Your task to perform on an android device: open wifi settings Image 0: 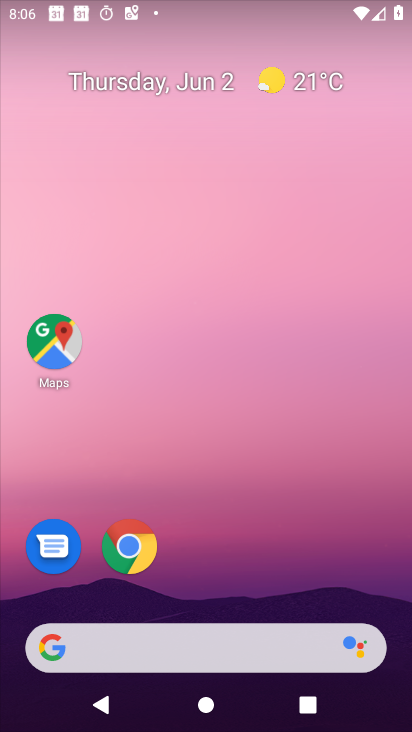
Step 0: drag from (299, 438) to (322, 164)
Your task to perform on an android device: open wifi settings Image 1: 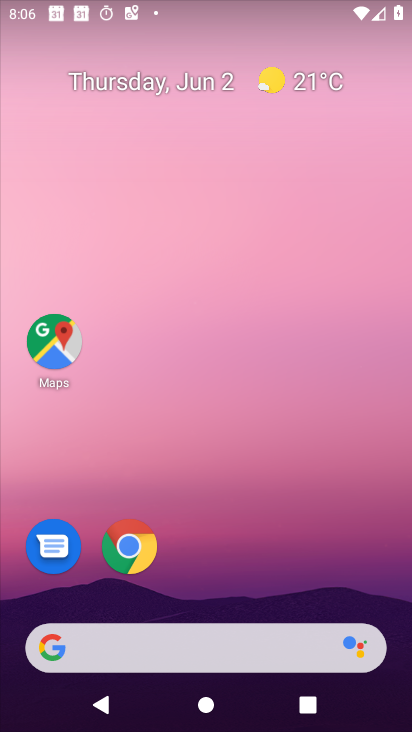
Step 1: drag from (330, 613) to (329, 260)
Your task to perform on an android device: open wifi settings Image 2: 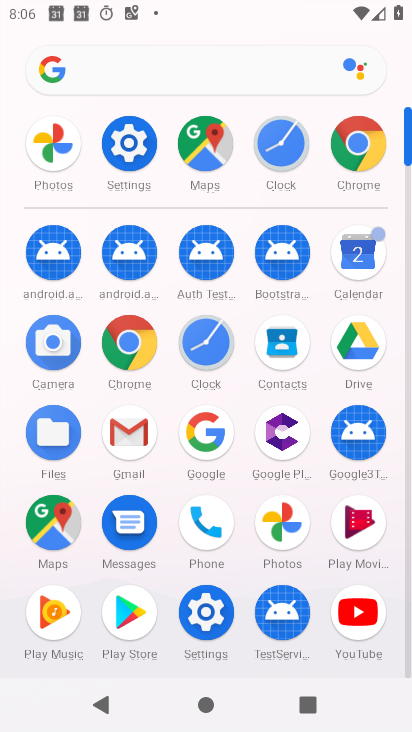
Step 2: drag from (185, 519) to (275, 109)
Your task to perform on an android device: open wifi settings Image 3: 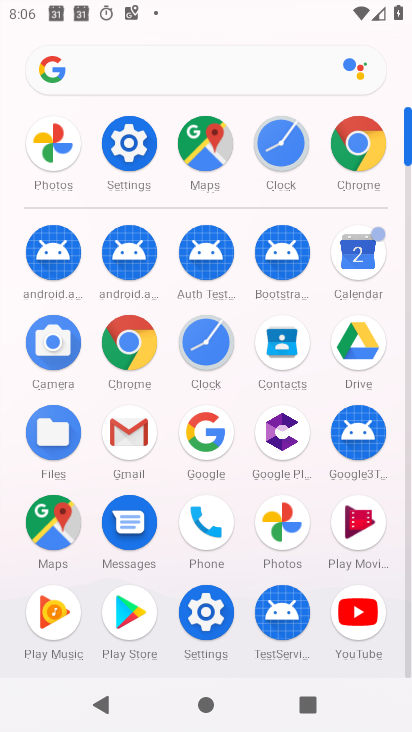
Step 3: click (217, 632)
Your task to perform on an android device: open wifi settings Image 4: 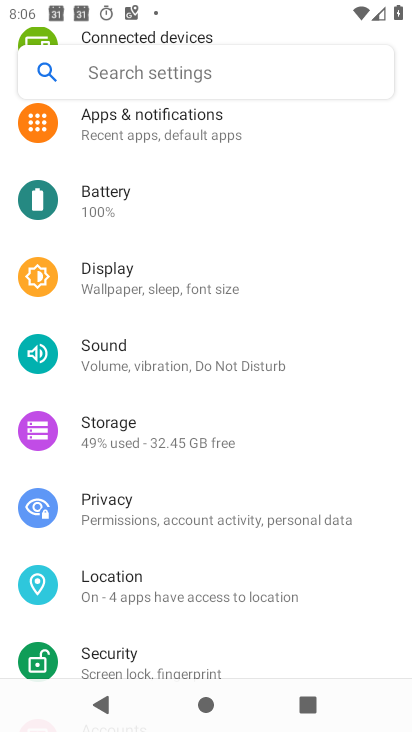
Step 4: drag from (309, 192) to (265, 631)
Your task to perform on an android device: open wifi settings Image 5: 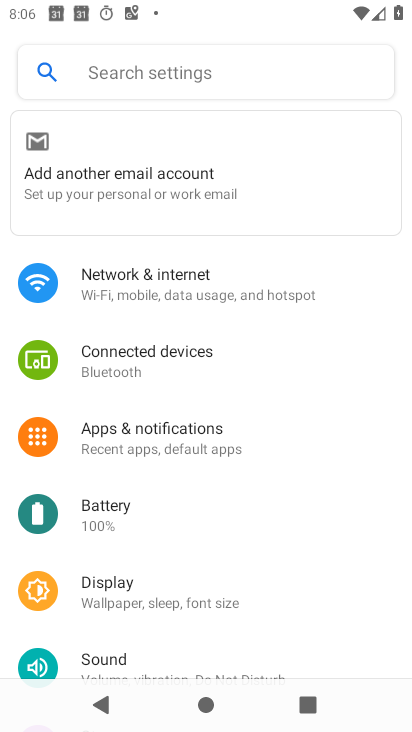
Step 5: click (232, 305)
Your task to perform on an android device: open wifi settings Image 6: 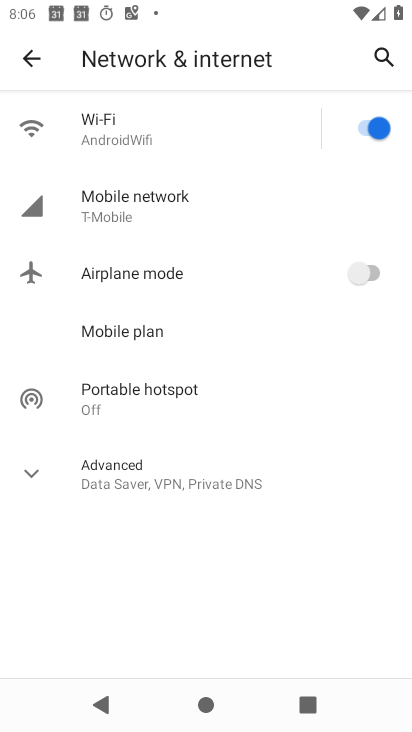
Step 6: click (233, 132)
Your task to perform on an android device: open wifi settings Image 7: 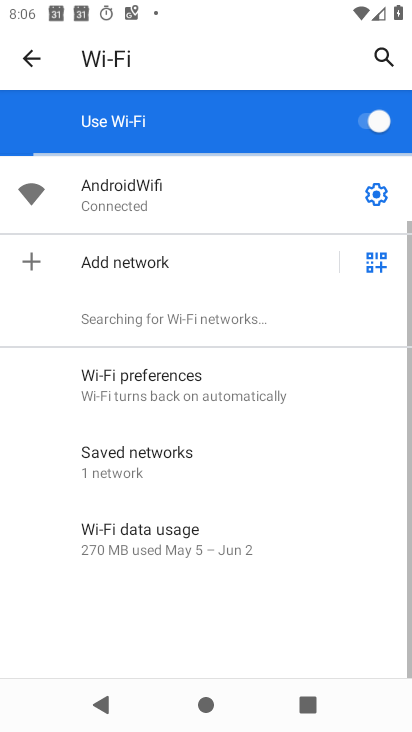
Step 7: click (380, 192)
Your task to perform on an android device: open wifi settings Image 8: 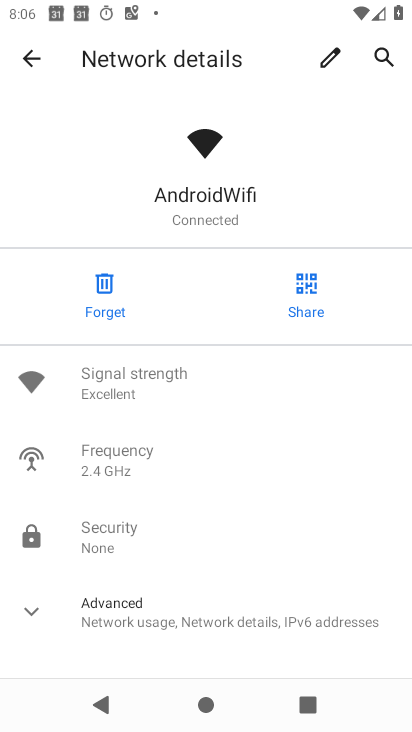
Step 8: task complete